Your task to perform on an android device: manage bookmarks in the chrome app Image 0: 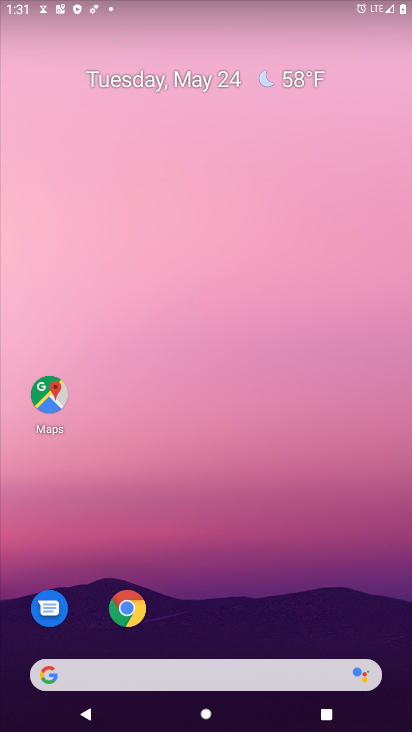
Step 0: drag from (261, 692) to (179, 40)
Your task to perform on an android device: manage bookmarks in the chrome app Image 1: 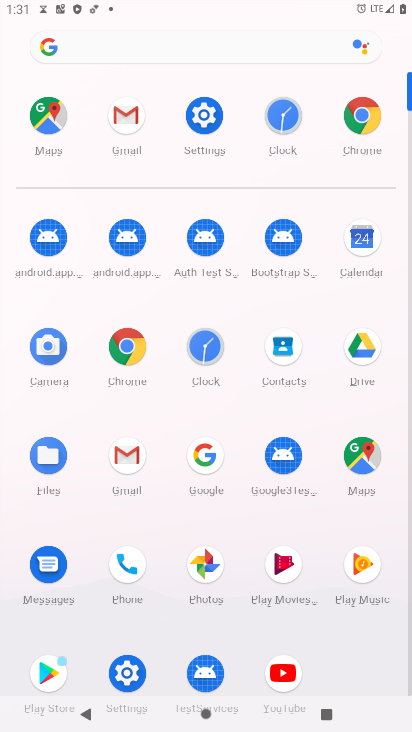
Step 1: click (142, 368)
Your task to perform on an android device: manage bookmarks in the chrome app Image 2: 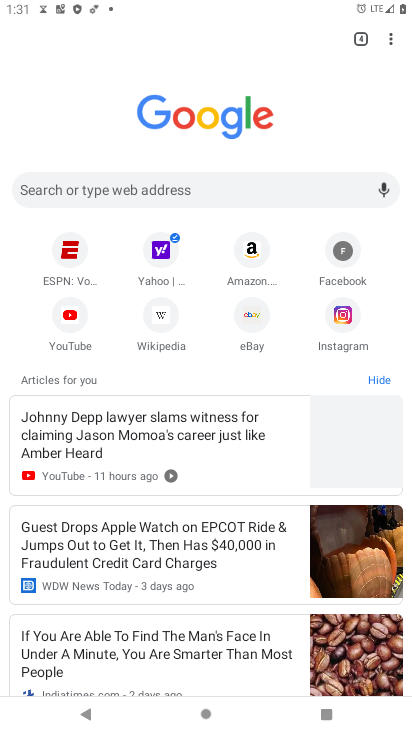
Step 2: click (395, 50)
Your task to perform on an android device: manage bookmarks in the chrome app Image 3: 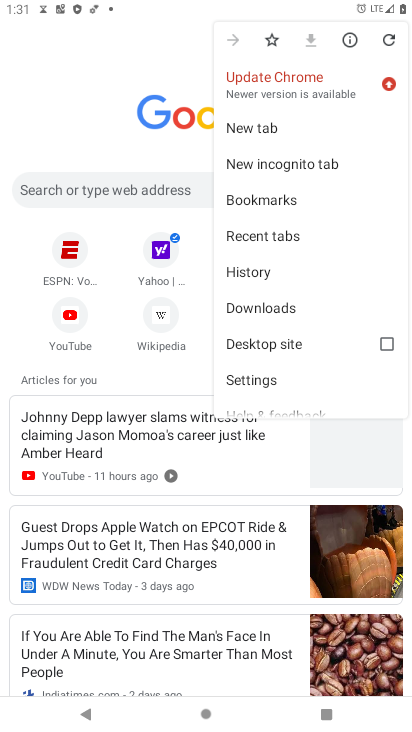
Step 3: click (306, 201)
Your task to perform on an android device: manage bookmarks in the chrome app Image 4: 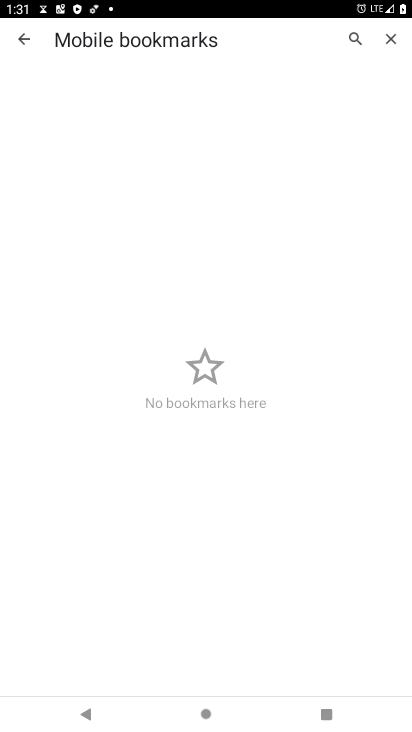
Step 4: task complete